Your task to perform on an android device: turn notification dots off Image 0: 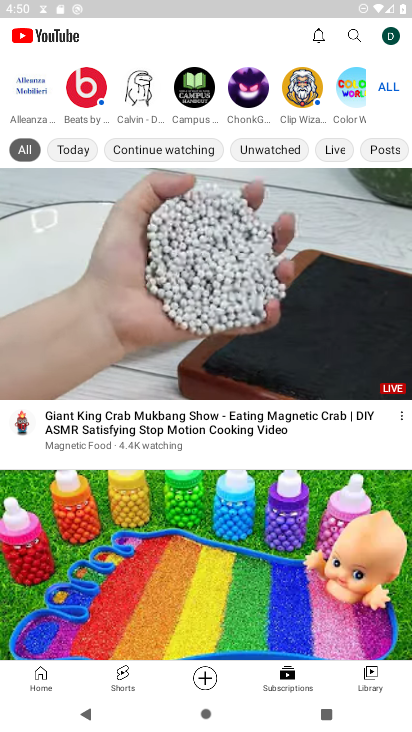
Step 0: press home button
Your task to perform on an android device: turn notification dots off Image 1: 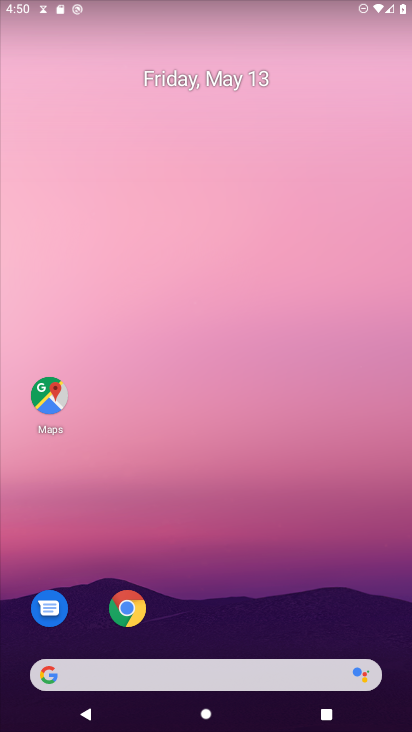
Step 1: drag from (265, 653) to (408, 153)
Your task to perform on an android device: turn notification dots off Image 2: 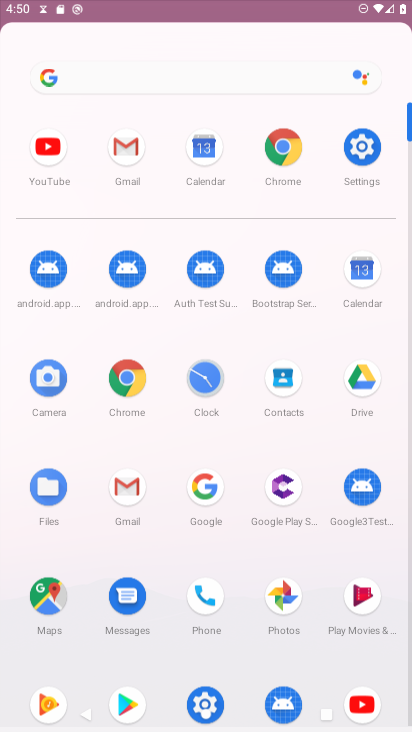
Step 2: click (368, 110)
Your task to perform on an android device: turn notification dots off Image 3: 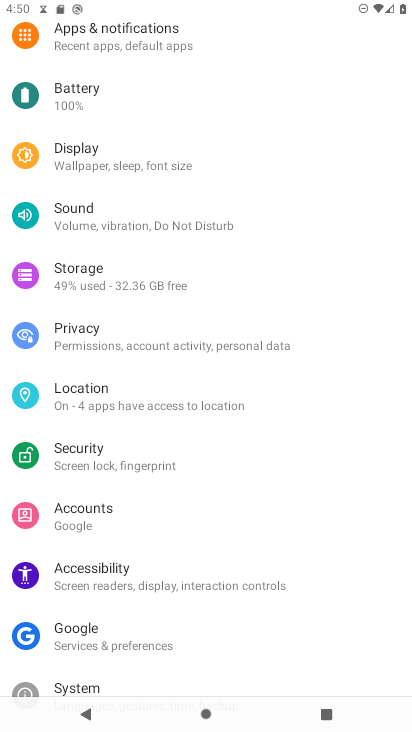
Step 3: drag from (234, 243) to (248, 673)
Your task to perform on an android device: turn notification dots off Image 4: 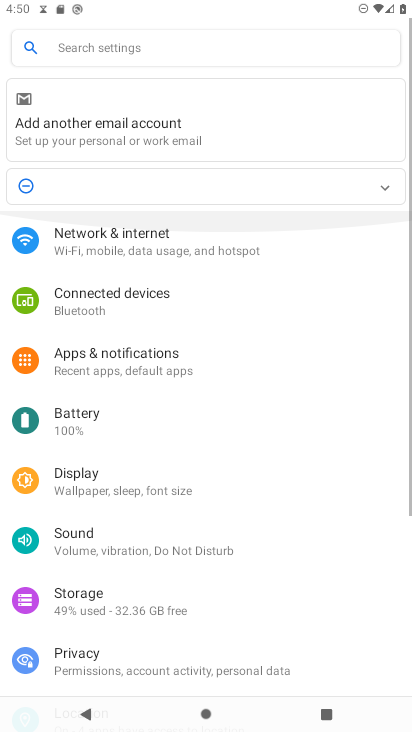
Step 4: click (125, 357)
Your task to perform on an android device: turn notification dots off Image 5: 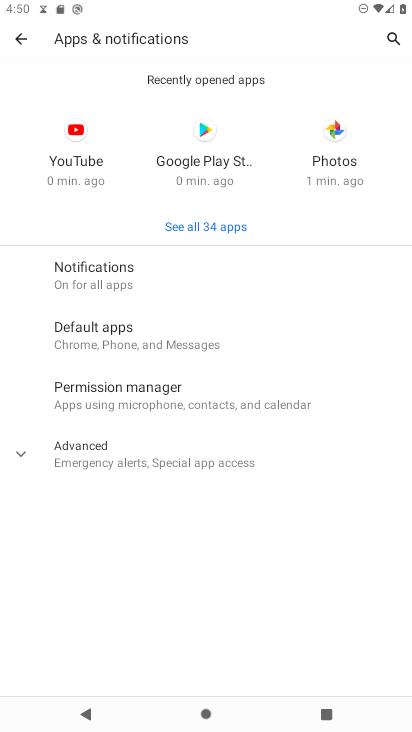
Step 5: click (141, 270)
Your task to perform on an android device: turn notification dots off Image 6: 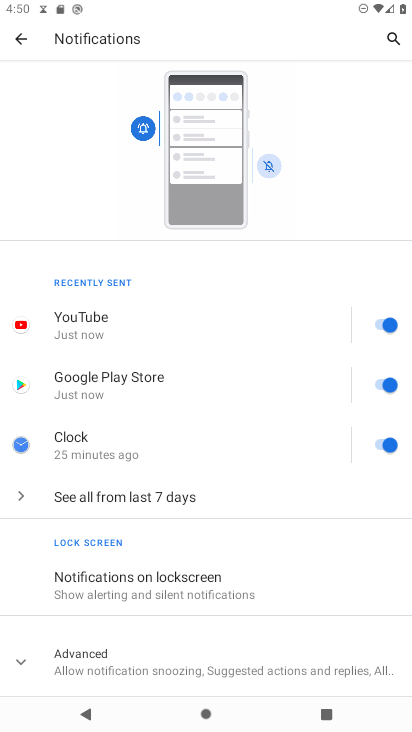
Step 6: click (193, 647)
Your task to perform on an android device: turn notification dots off Image 7: 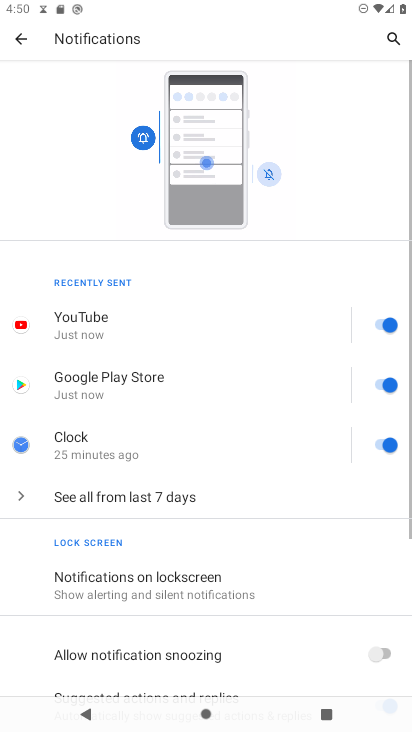
Step 7: task complete